Your task to perform on an android device: Open network settings Image 0: 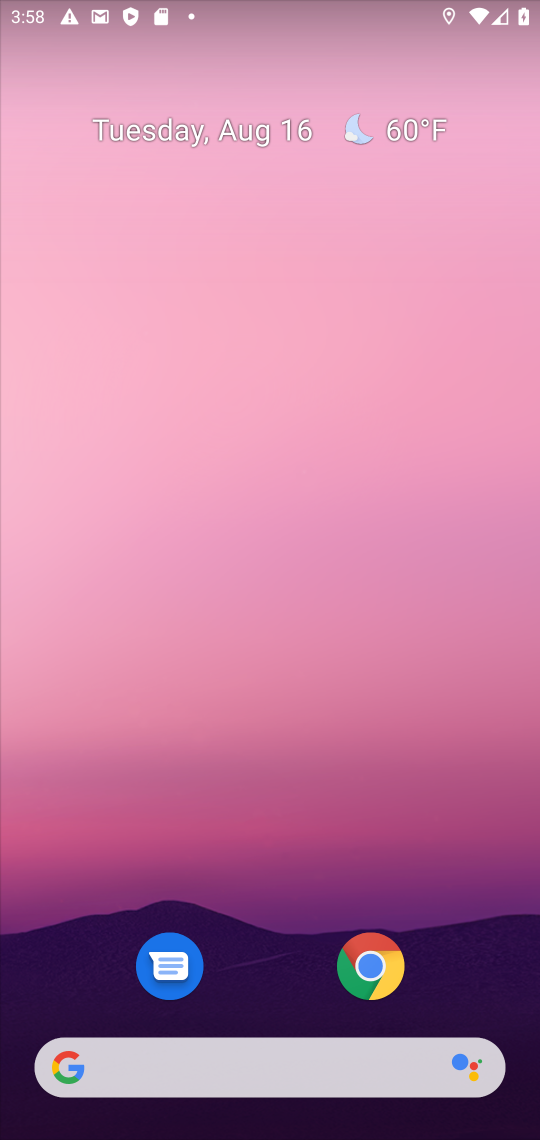
Step 0: drag from (538, 483) to (521, 275)
Your task to perform on an android device: Open network settings Image 1: 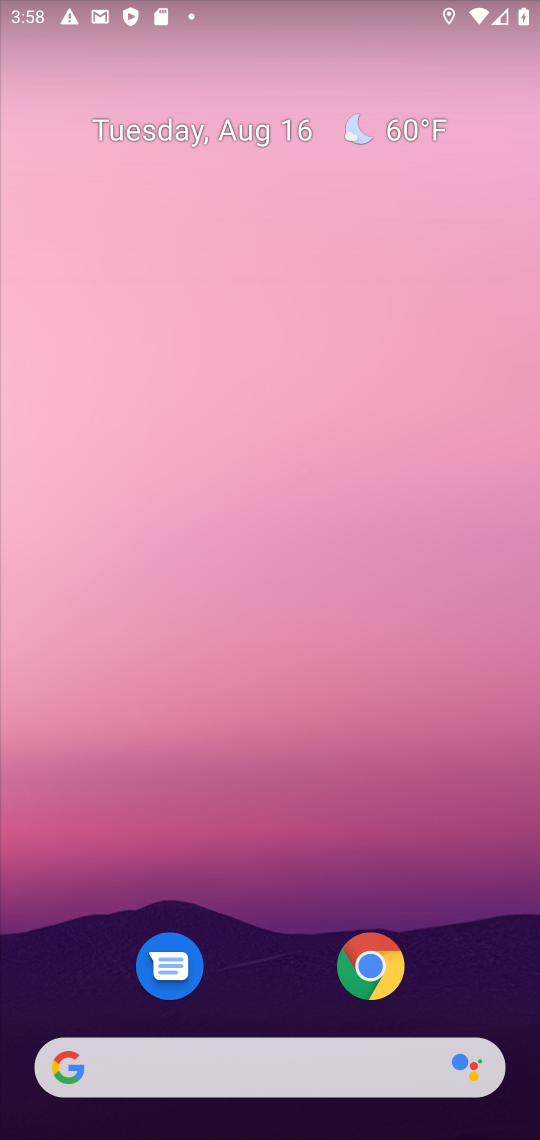
Step 1: drag from (79, 360) to (77, 216)
Your task to perform on an android device: Open network settings Image 2: 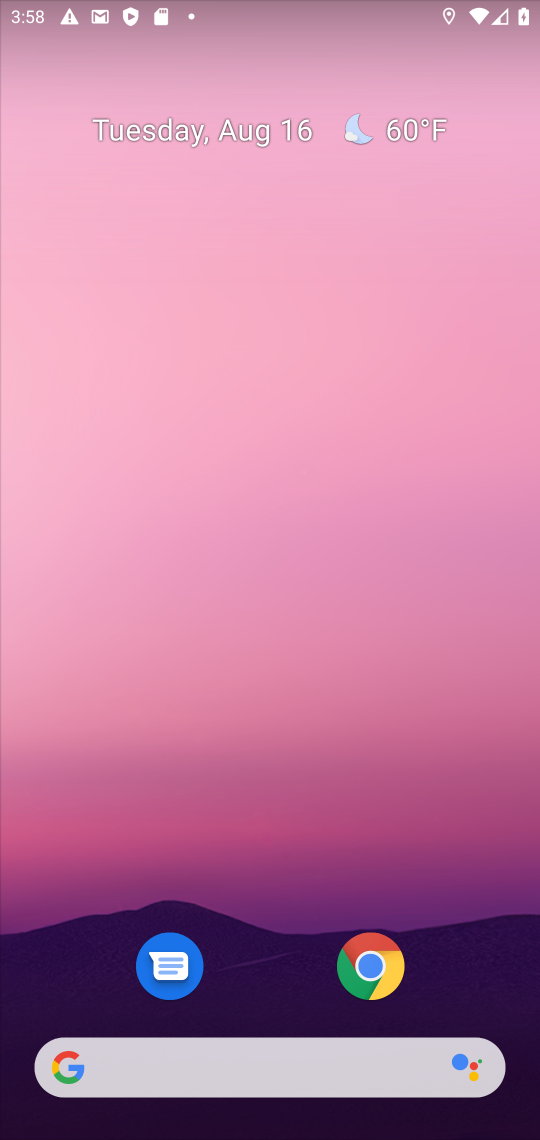
Step 2: drag from (50, 1064) to (274, 206)
Your task to perform on an android device: Open network settings Image 3: 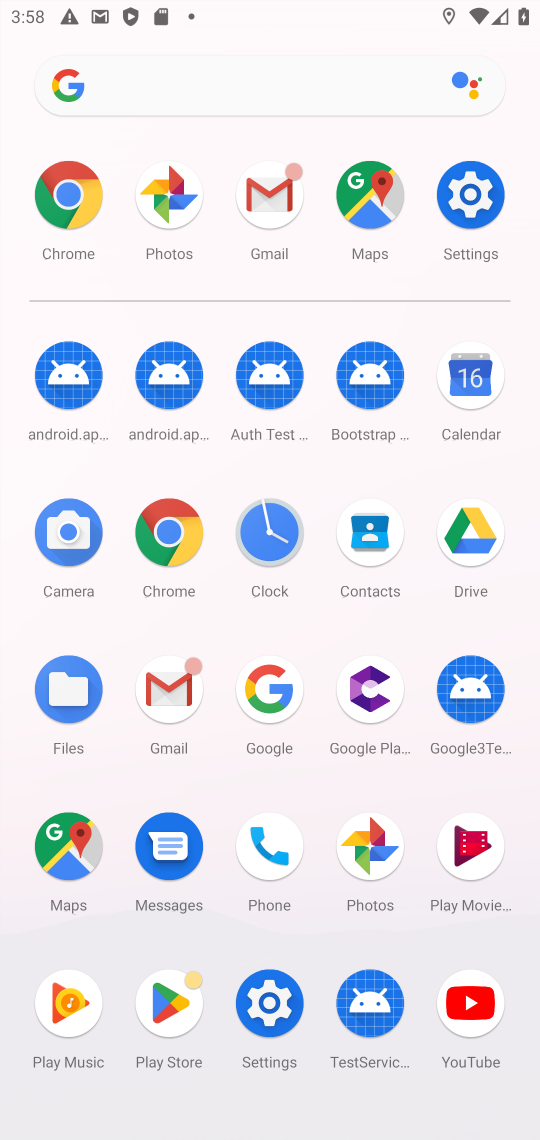
Step 3: click (292, 996)
Your task to perform on an android device: Open network settings Image 4: 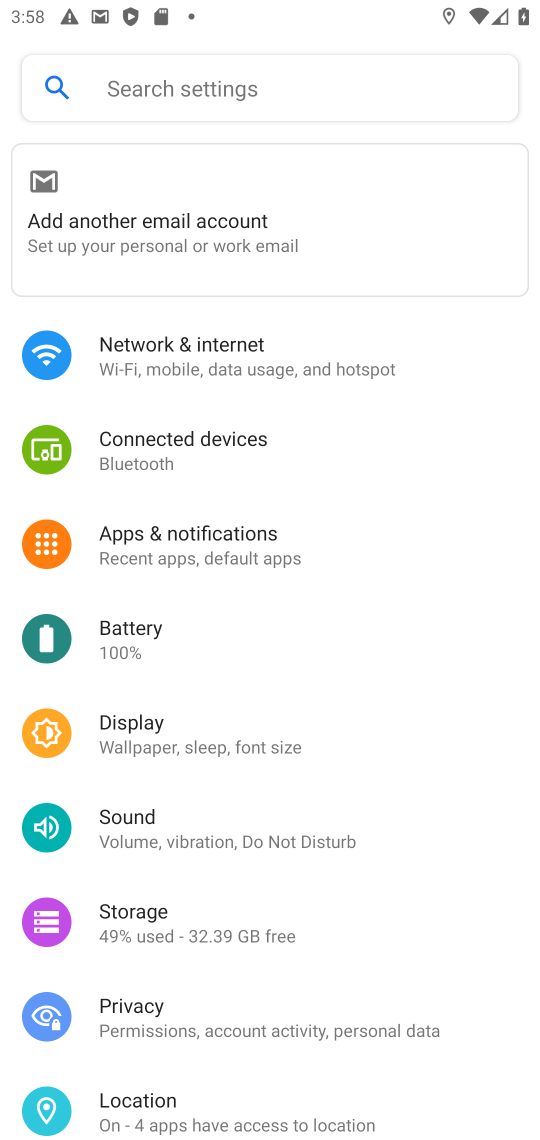
Step 4: click (259, 341)
Your task to perform on an android device: Open network settings Image 5: 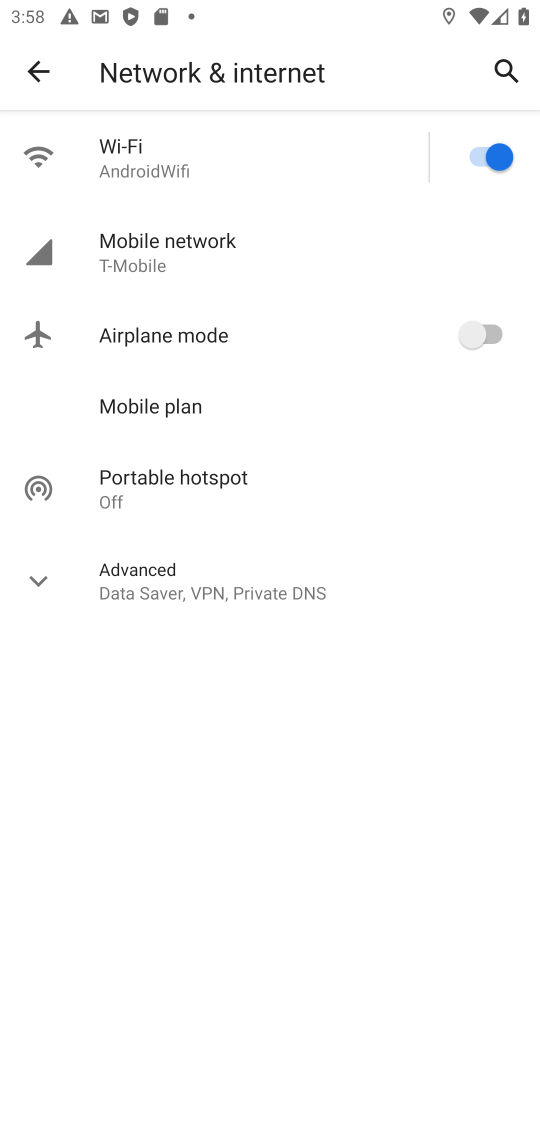
Step 5: task complete